Your task to perform on an android device: Open the map Image 0: 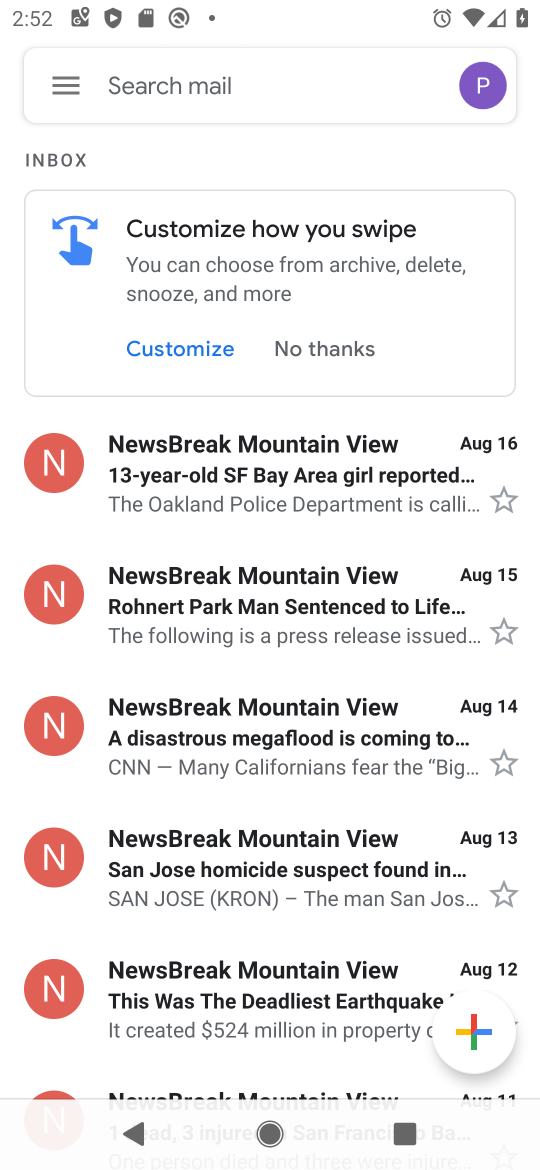
Step 0: press home button
Your task to perform on an android device: Open the map Image 1: 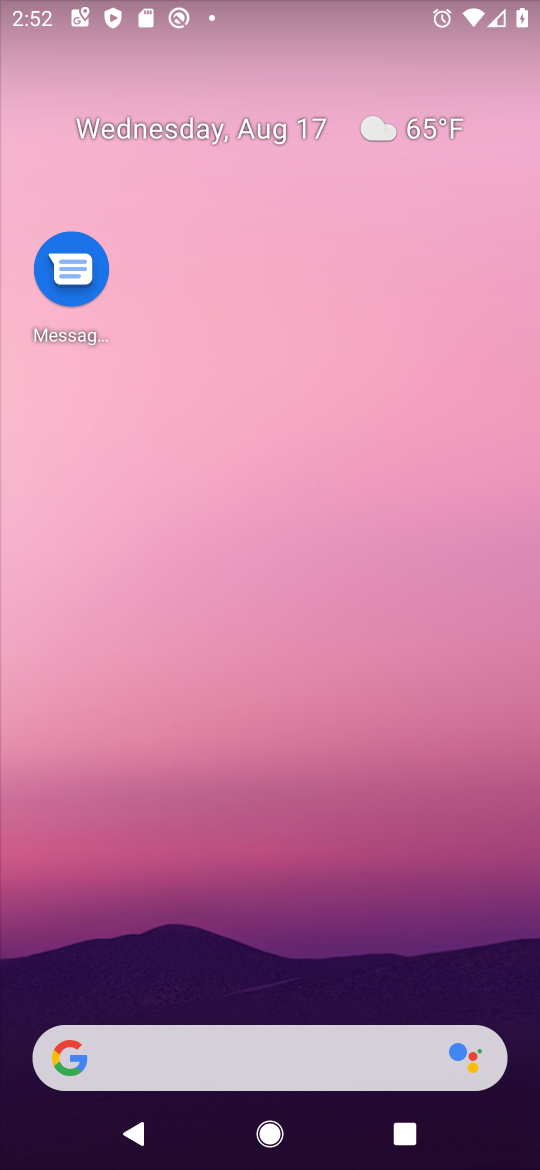
Step 1: drag from (213, 601) to (394, 20)
Your task to perform on an android device: Open the map Image 2: 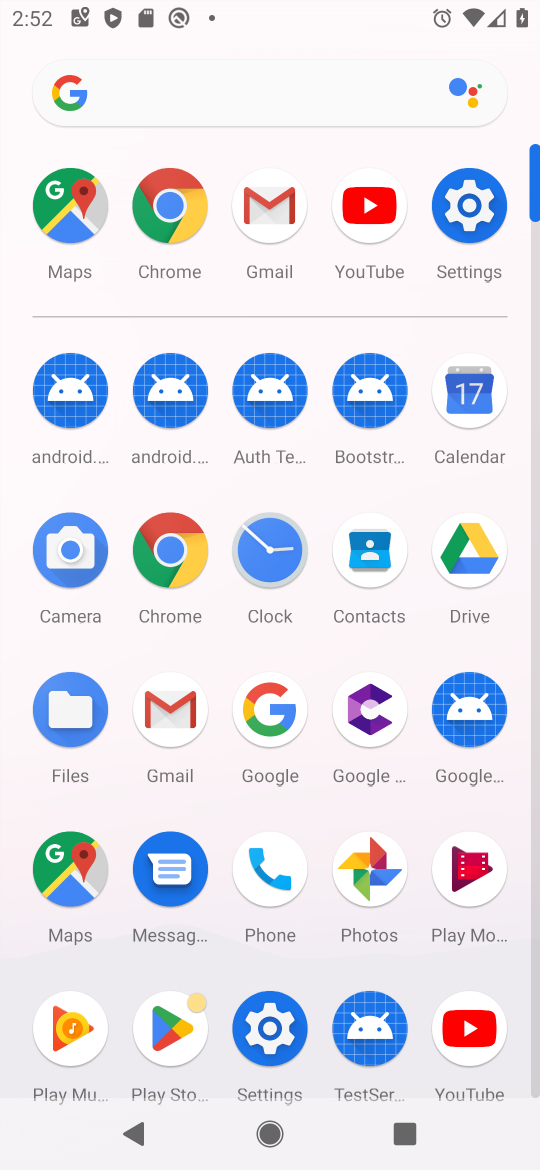
Step 2: click (69, 854)
Your task to perform on an android device: Open the map Image 3: 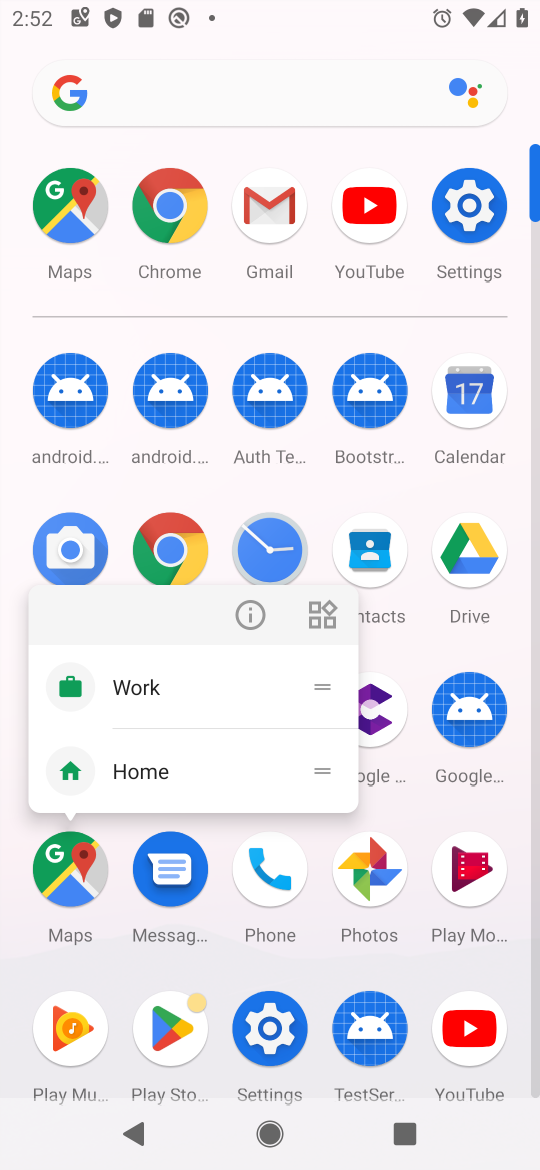
Step 3: click (87, 900)
Your task to perform on an android device: Open the map Image 4: 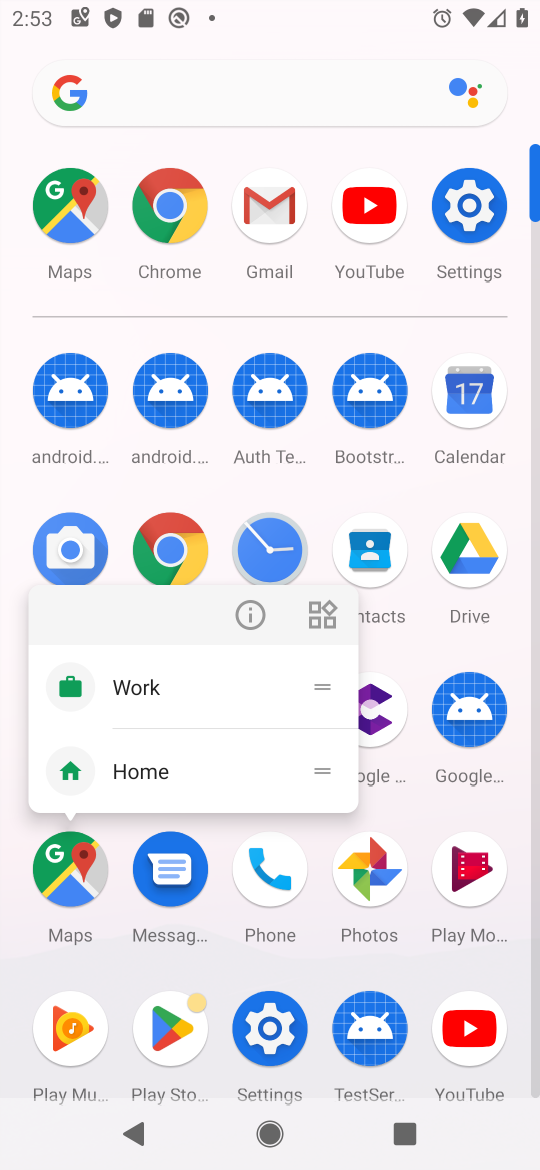
Step 4: click (46, 844)
Your task to perform on an android device: Open the map Image 5: 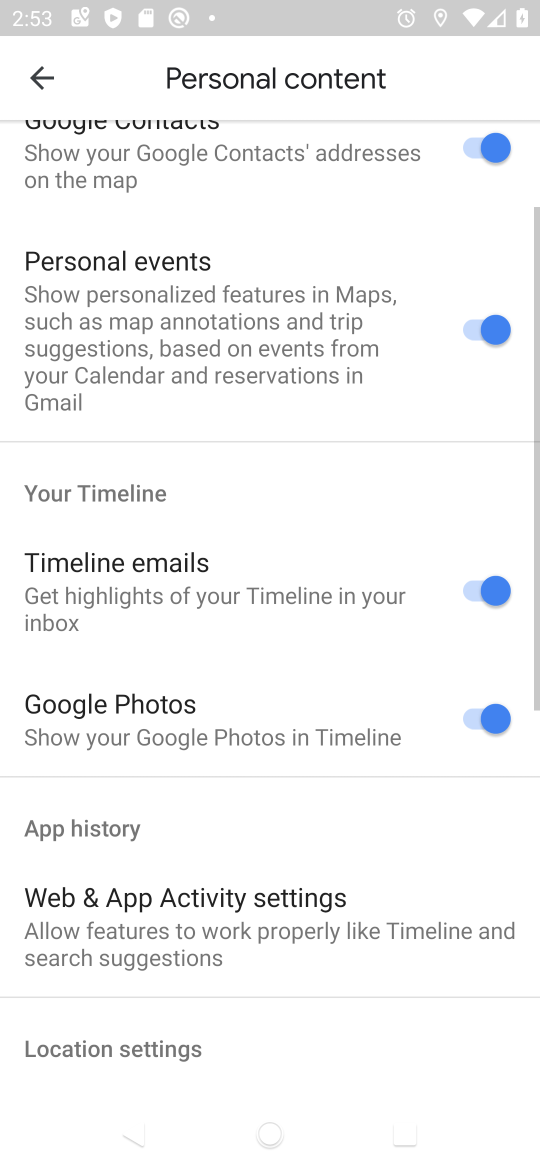
Step 5: task complete